Your task to perform on an android device: Open settings on Google Maps Image 0: 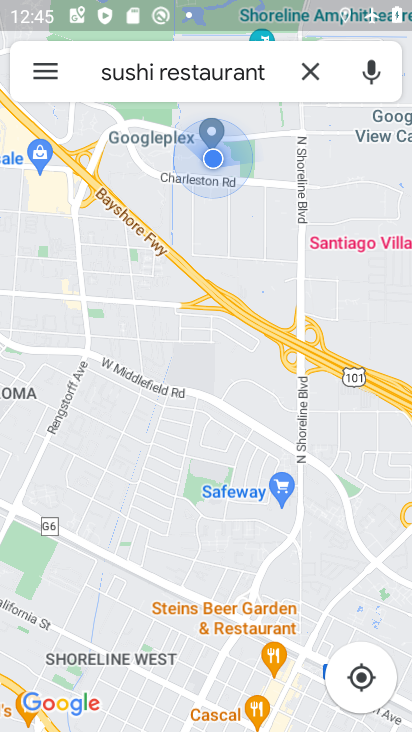
Step 0: press home button
Your task to perform on an android device: Open settings on Google Maps Image 1: 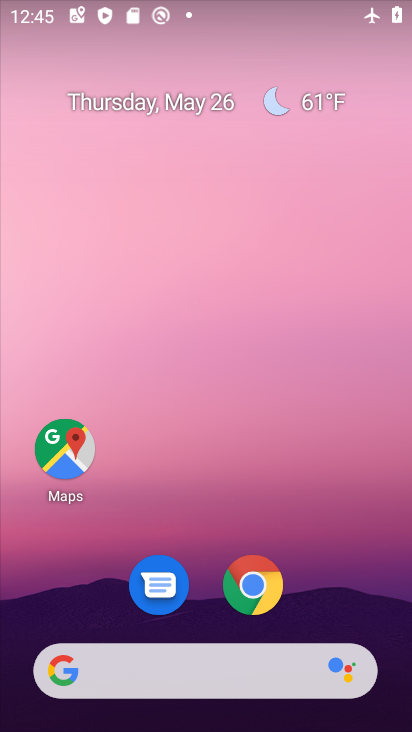
Step 1: click (73, 441)
Your task to perform on an android device: Open settings on Google Maps Image 2: 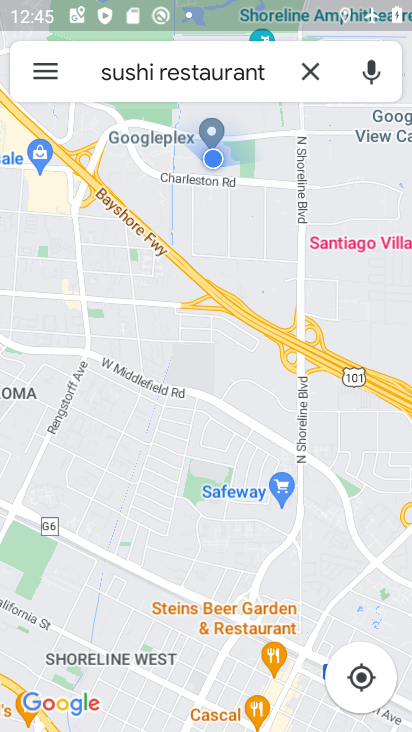
Step 2: click (39, 62)
Your task to perform on an android device: Open settings on Google Maps Image 3: 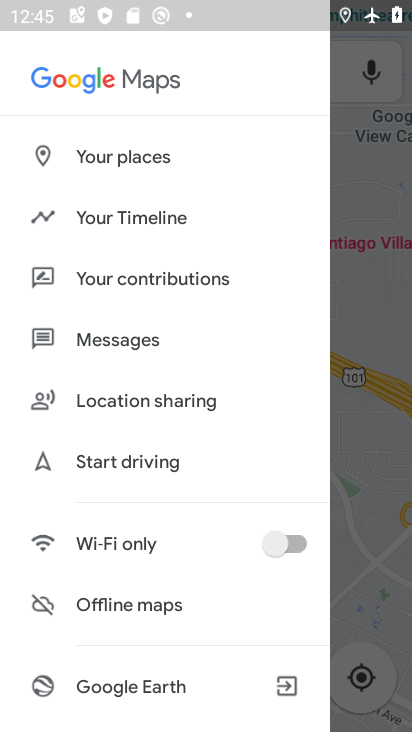
Step 3: drag from (159, 587) to (214, 81)
Your task to perform on an android device: Open settings on Google Maps Image 4: 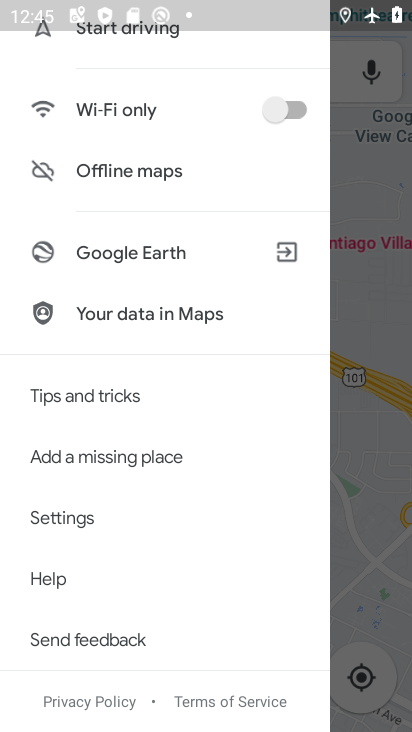
Step 4: click (77, 512)
Your task to perform on an android device: Open settings on Google Maps Image 5: 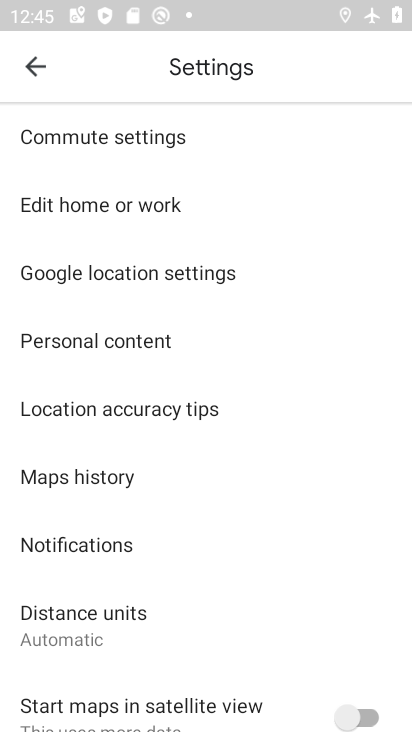
Step 5: task complete